Your task to perform on an android device: stop showing notifications on the lock screen Image 0: 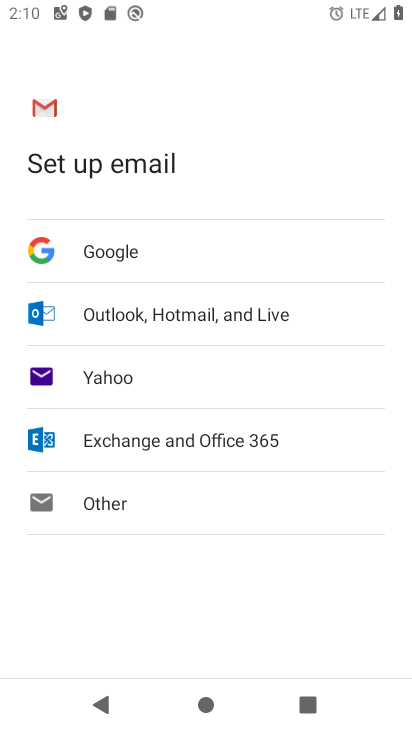
Step 0: press home button
Your task to perform on an android device: stop showing notifications on the lock screen Image 1: 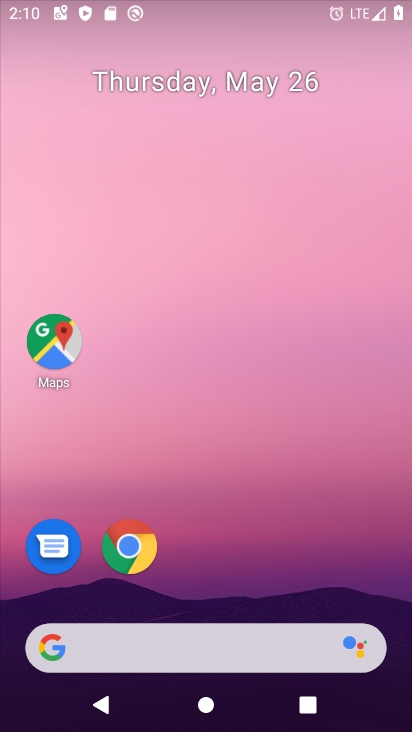
Step 1: drag from (247, 531) to (292, 94)
Your task to perform on an android device: stop showing notifications on the lock screen Image 2: 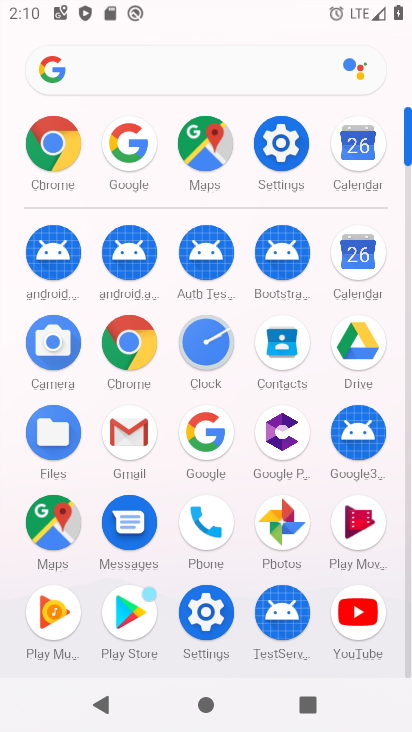
Step 2: click (276, 133)
Your task to perform on an android device: stop showing notifications on the lock screen Image 3: 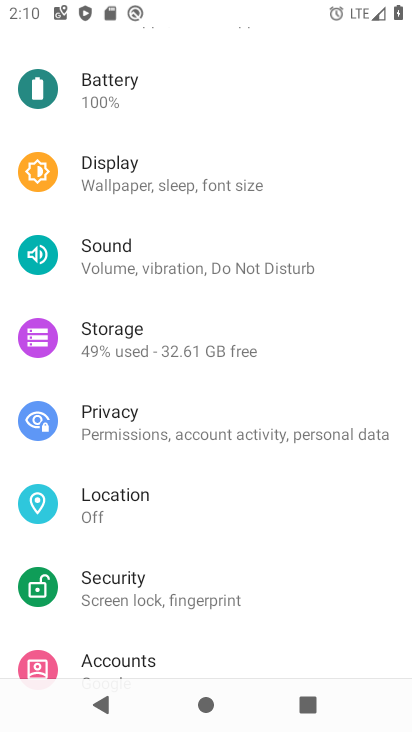
Step 3: drag from (209, 197) to (232, 518)
Your task to perform on an android device: stop showing notifications on the lock screen Image 4: 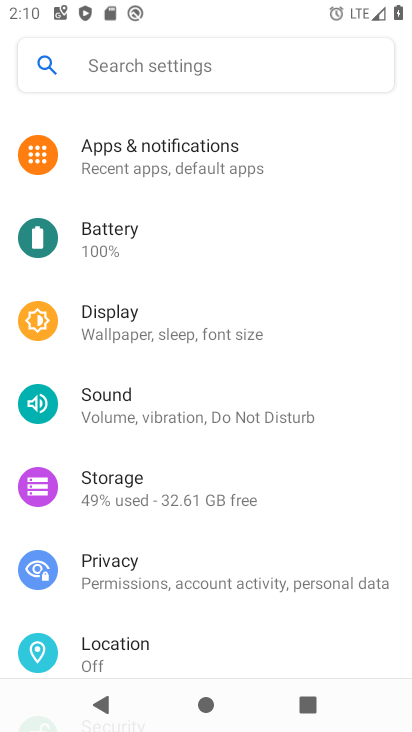
Step 4: click (161, 162)
Your task to perform on an android device: stop showing notifications on the lock screen Image 5: 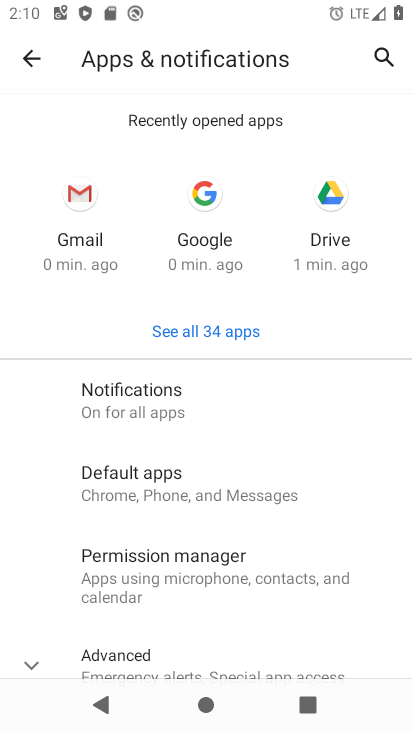
Step 5: click (196, 410)
Your task to perform on an android device: stop showing notifications on the lock screen Image 6: 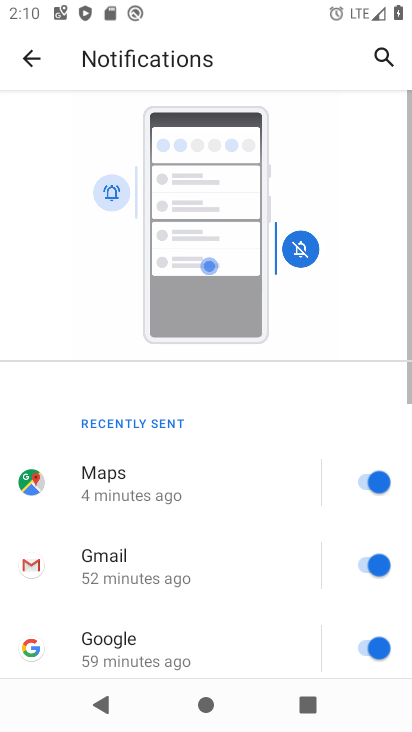
Step 6: drag from (214, 561) to (278, 64)
Your task to perform on an android device: stop showing notifications on the lock screen Image 7: 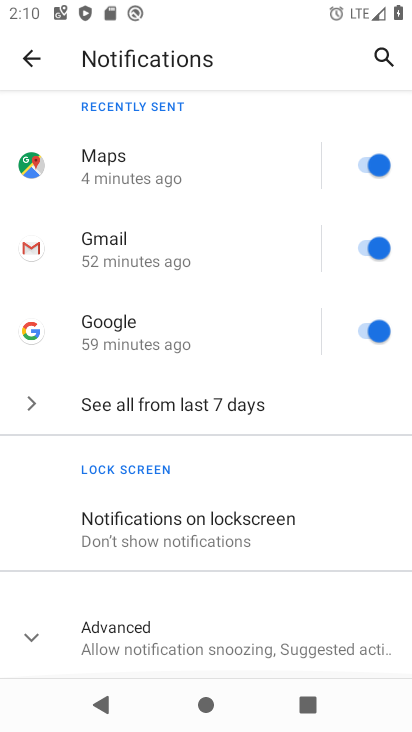
Step 7: click (175, 547)
Your task to perform on an android device: stop showing notifications on the lock screen Image 8: 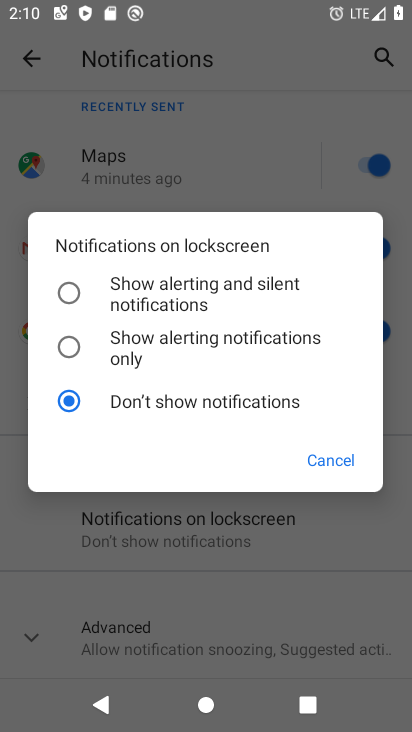
Step 8: task complete